Your task to perform on an android device: turn on wifi Image 0: 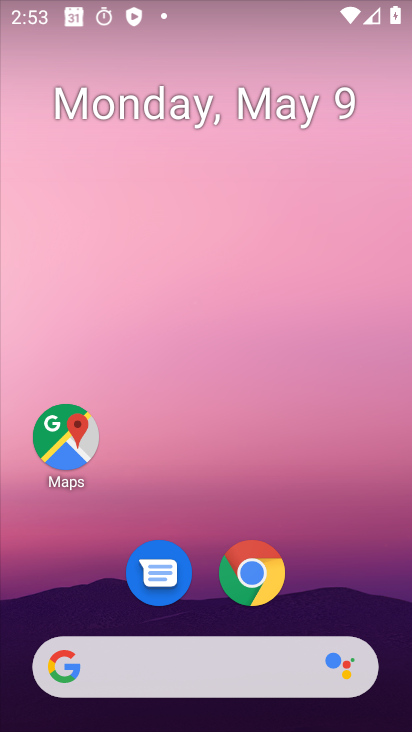
Step 0: drag from (345, 644) to (183, 217)
Your task to perform on an android device: turn on wifi Image 1: 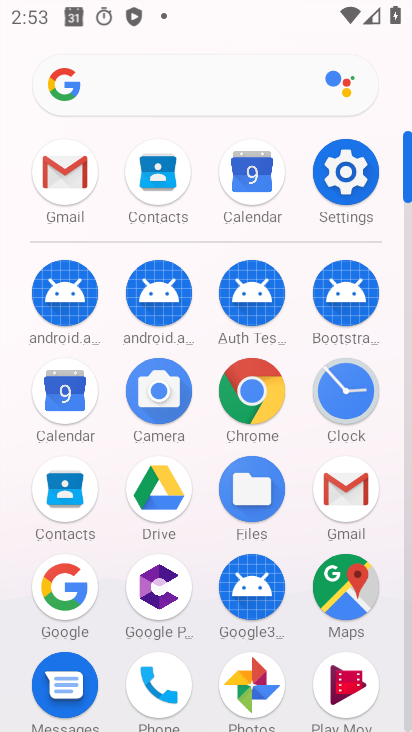
Step 1: click (340, 174)
Your task to perform on an android device: turn on wifi Image 2: 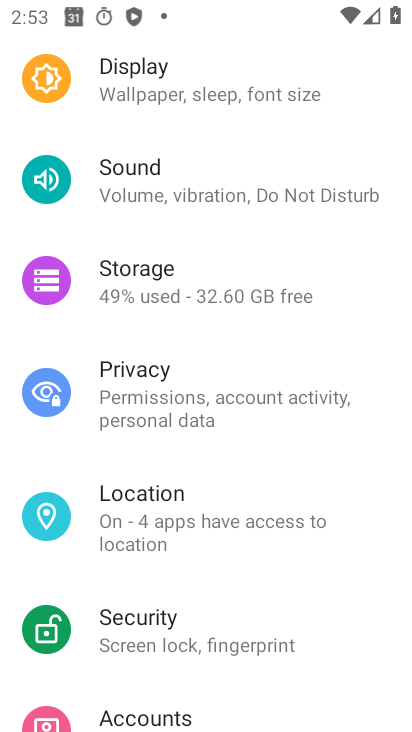
Step 2: drag from (194, 225) to (233, 557)
Your task to perform on an android device: turn on wifi Image 3: 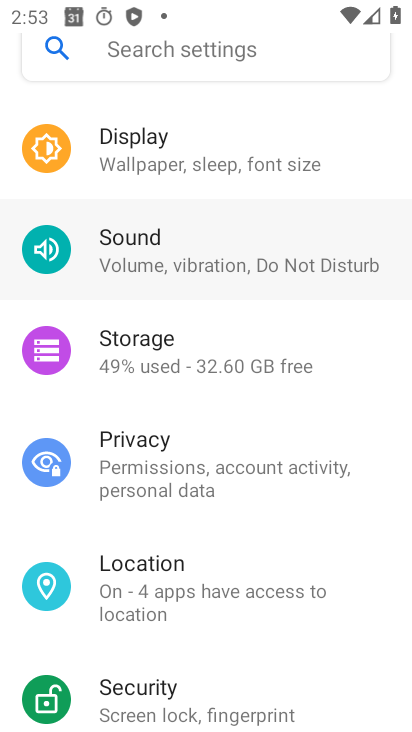
Step 3: drag from (237, 204) to (237, 452)
Your task to perform on an android device: turn on wifi Image 4: 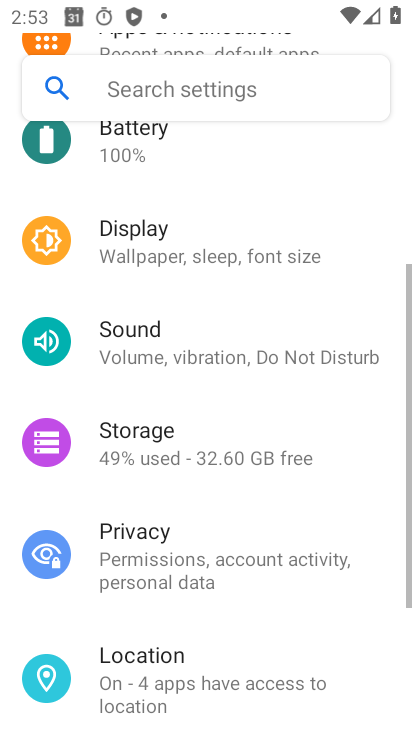
Step 4: drag from (210, 282) to (194, 628)
Your task to perform on an android device: turn on wifi Image 5: 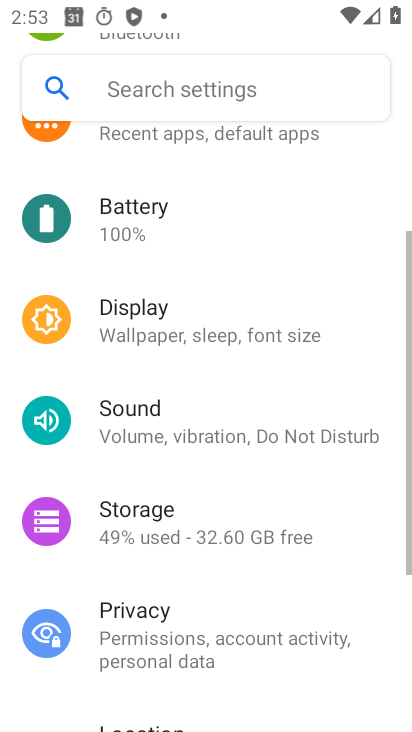
Step 5: drag from (189, 255) to (202, 626)
Your task to perform on an android device: turn on wifi Image 6: 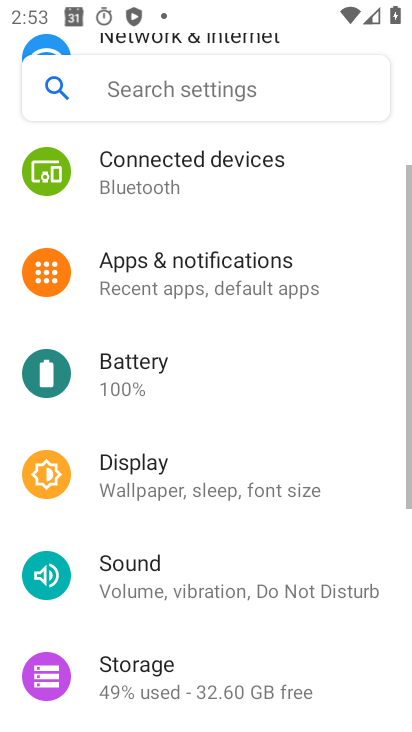
Step 6: drag from (183, 282) to (261, 453)
Your task to perform on an android device: turn on wifi Image 7: 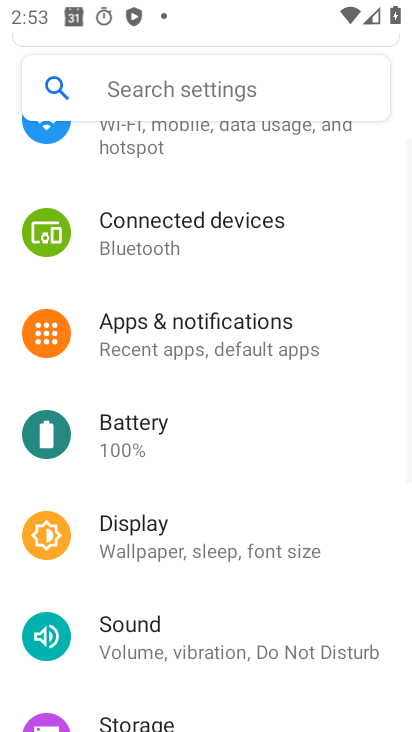
Step 7: drag from (196, 240) to (238, 596)
Your task to perform on an android device: turn on wifi Image 8: 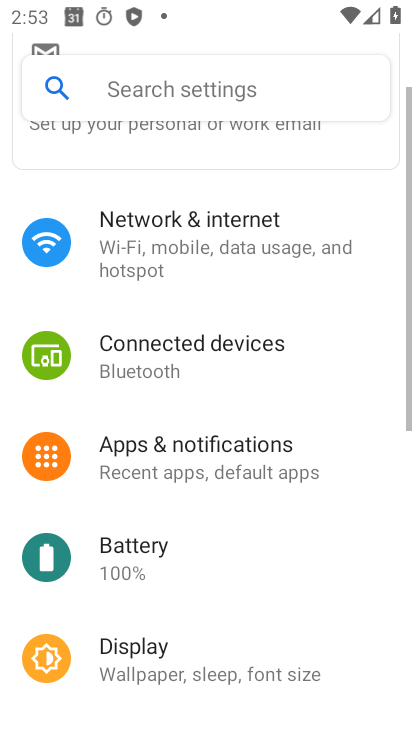
Step 8: drag from (226, 241) to (225, 559)
Your task to perform on an android device: turn on wifi Image 9: 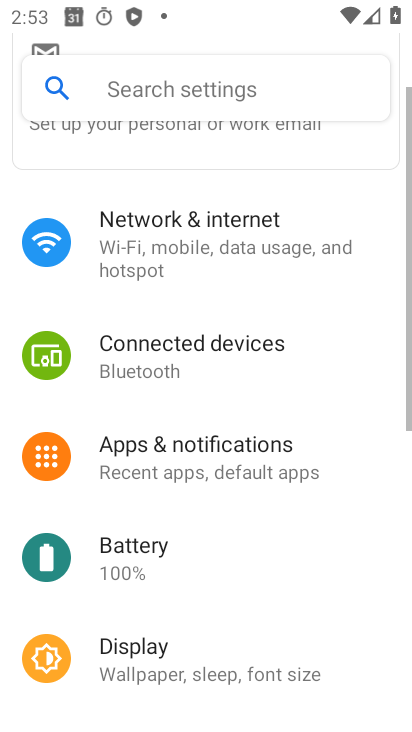
Step 9: drag from (122, 174) to (180, 636)
Your task to perform on an android device: turn on wifi Image 10: 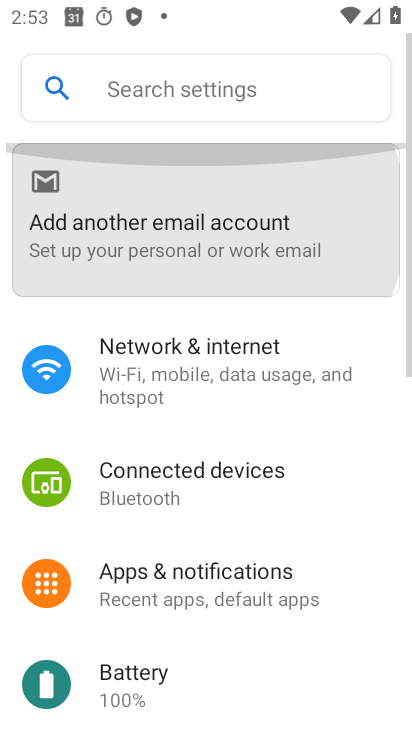
Step 10: drag from (144, 212) to (193, 573)
Your task to perform on an android device: turn on wifi Image 11: 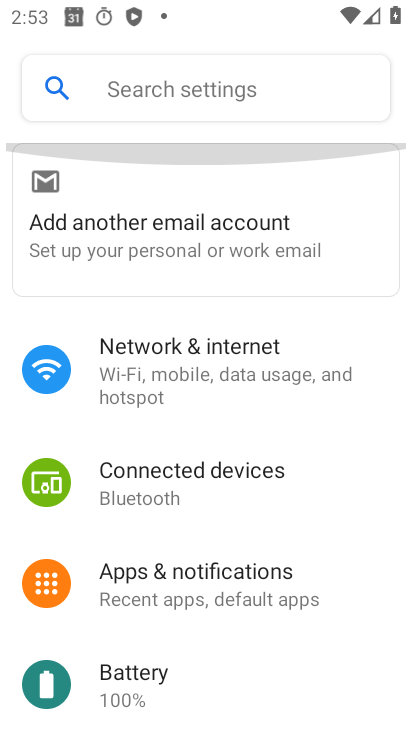
Step 11: drag from (192, 279) to (205, 545)
Your task to perform on an android device: turn on wifi Image 12: 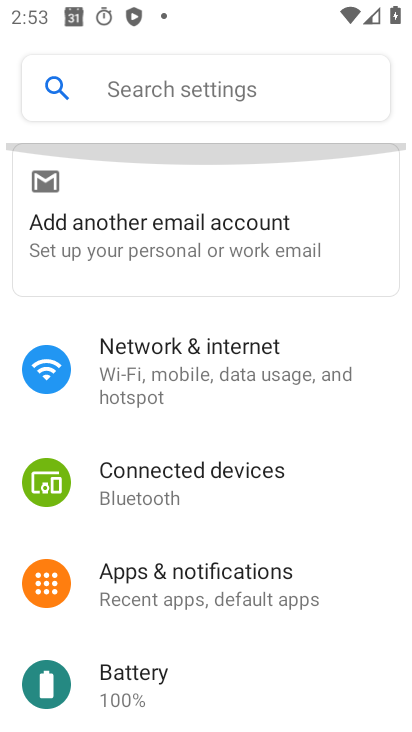
Step 12: drag from (203, 189) to (252, 555)
Your task to perform on an android device: turn on wifi Image 13: 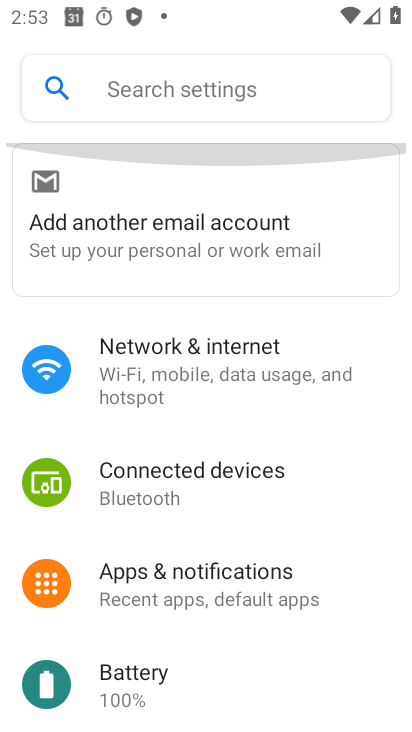
Step 13: drag from (278, 296) to (297, 493)
Your task to perform on an android device: turn on wifi Image 14: 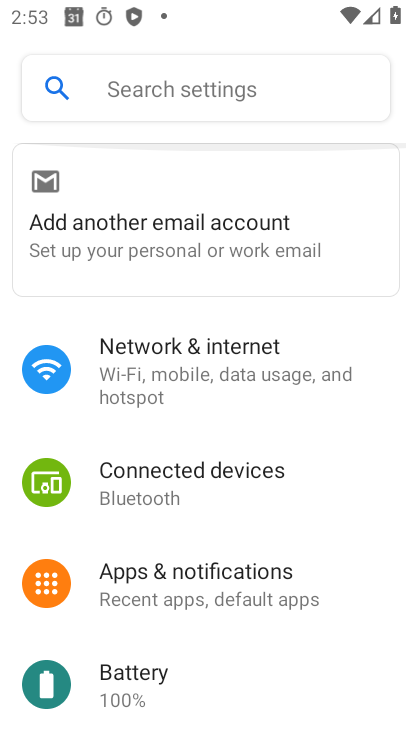
Step 14: click (166, 362)
Your task to perform on an android device: turn on wifi Image 15: 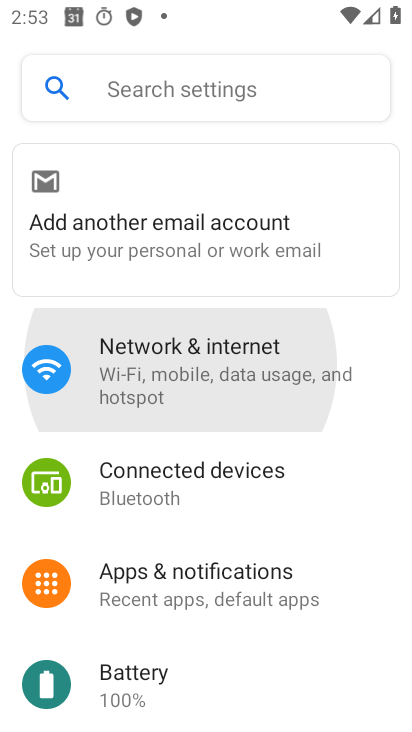
Step 15: click (165, 356)
Your task to perform on an android device: turn on wifi Image 16: 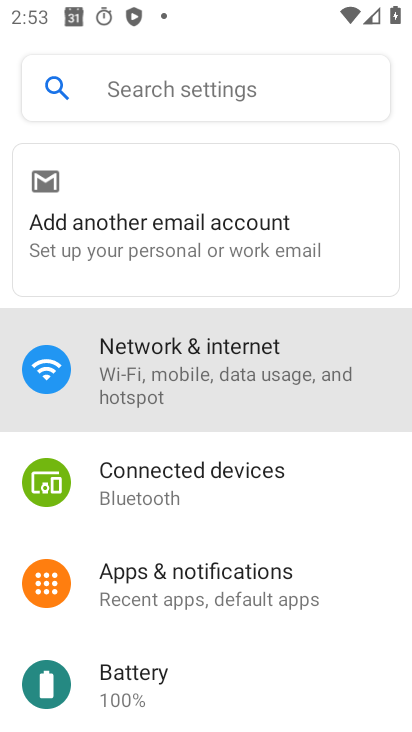
Step 16: click (165, 356)
Your task to perform on an android device: turn on wifi Image 17: 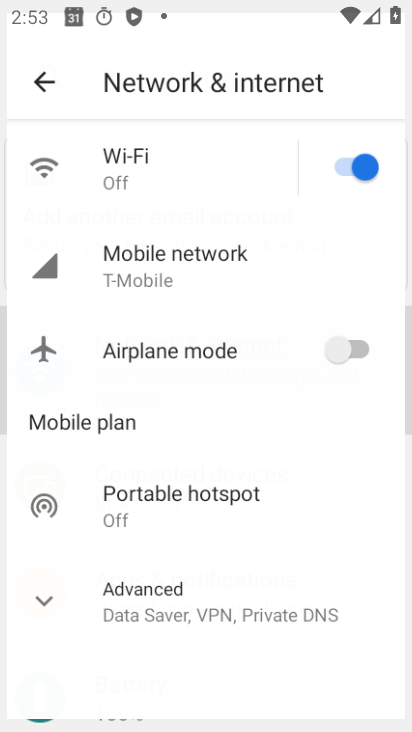
Step 17: click (165, 356)
Your task to perform on an android device: turn on wifi Image 18: 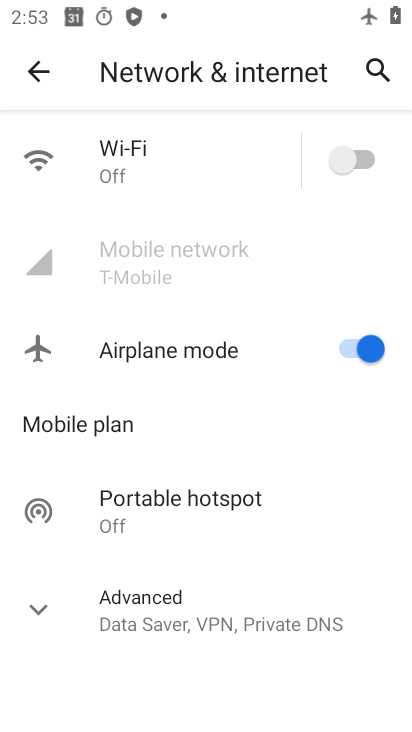
Step 18: click (340, 151)
Your task to perform on an android device: turn on wifi Image 19: 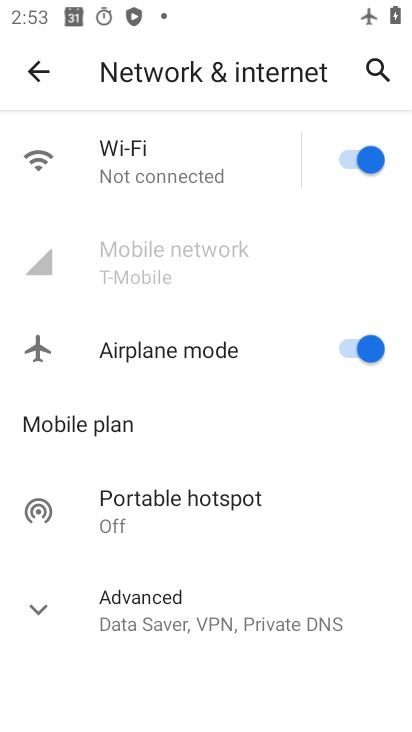
Step 19: click (372, 351)
Your task to perform on an android device: turn on wifi Image 20: 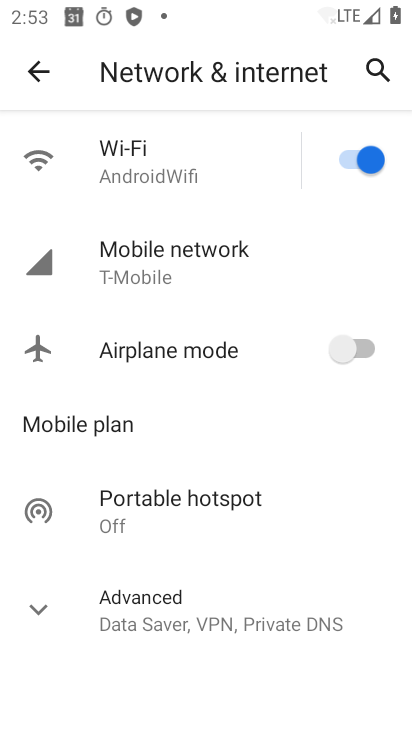
Step 20: task complete